Your task to perform on an android device: Open eBay Image 0: 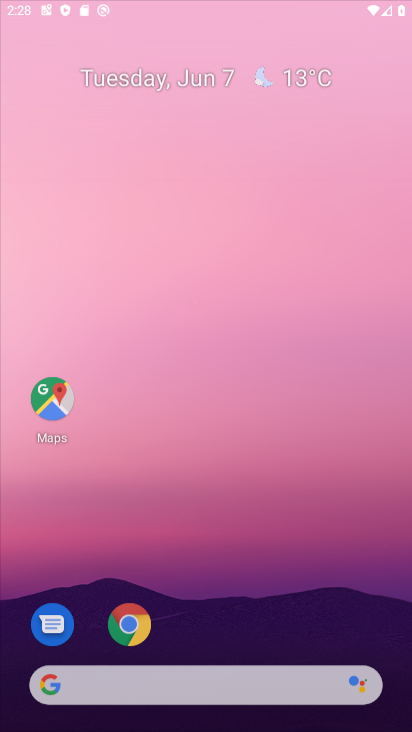
Step 0: press home button
Your task to perform on an android device: Open eBay Image 1: 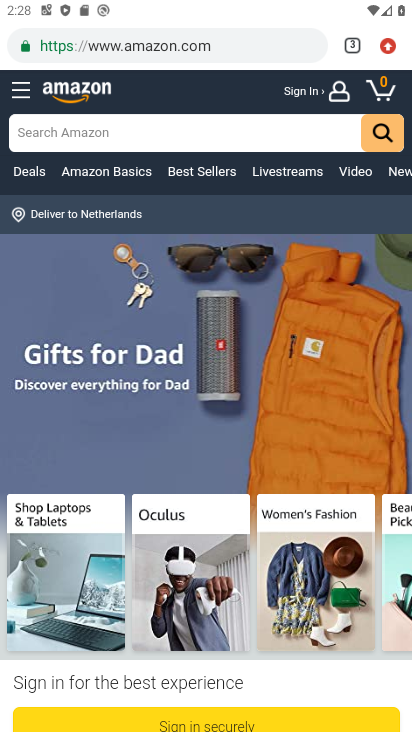
Step 1: click (246, 332)
Your task to perform on an android device: Open eBay Image 2: 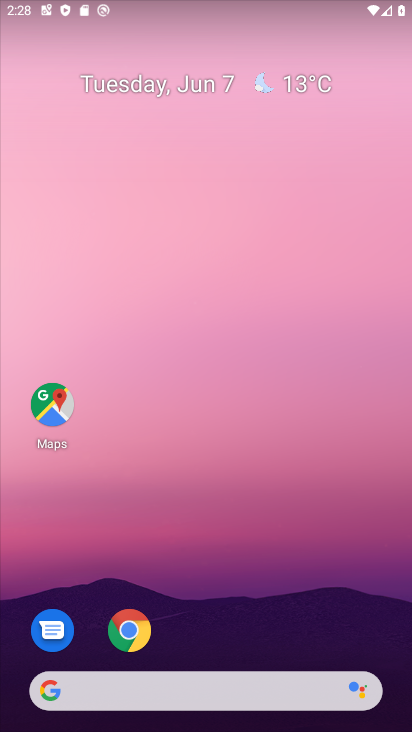
Step 2: click (126, 621)
Your task to perform on an android device: Open eBay Image 3: 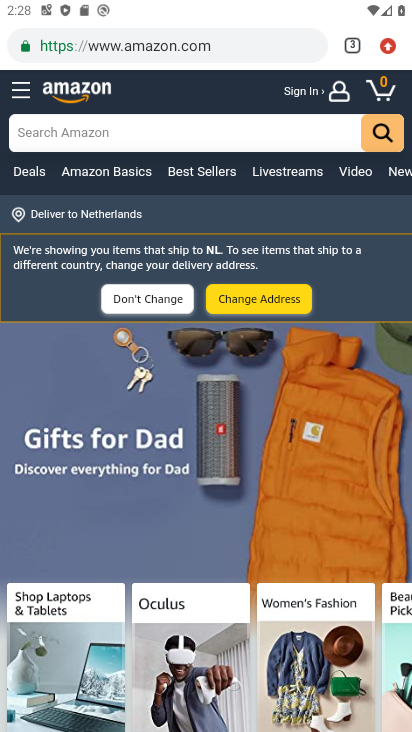
Step 3: click (352, 47)
Your task to perform on an android device: Open eBay Image 4: 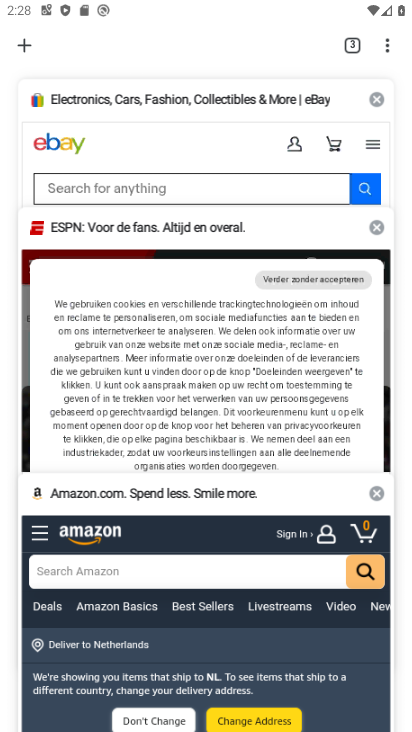
Step 4: click (184, 145)
Your task to perform on an android device: Open eBay Image 5: 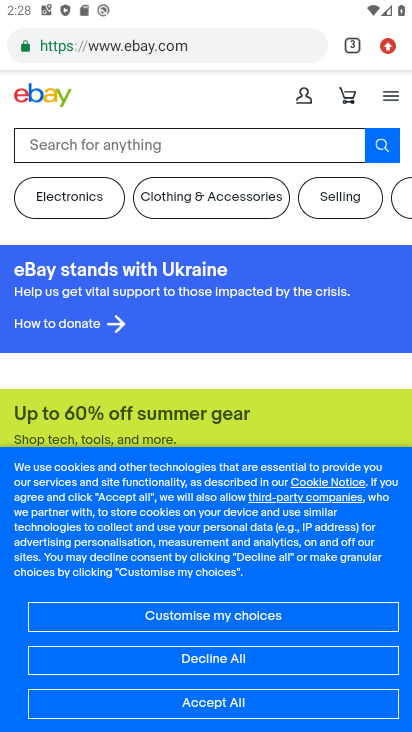
Step 5: task complete